Your task to perform on an android device: turn off priority inbox in the gmail app Image 0: 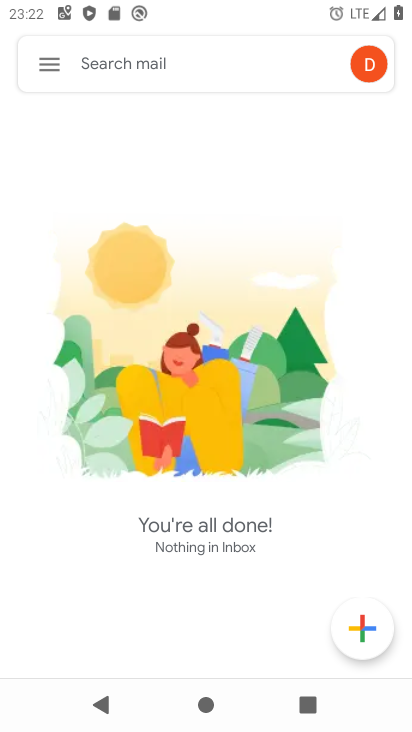
Step 0: click (43, 67)
Your task to perform on an android device: turn off priority inbox in the gmail app Image 1: 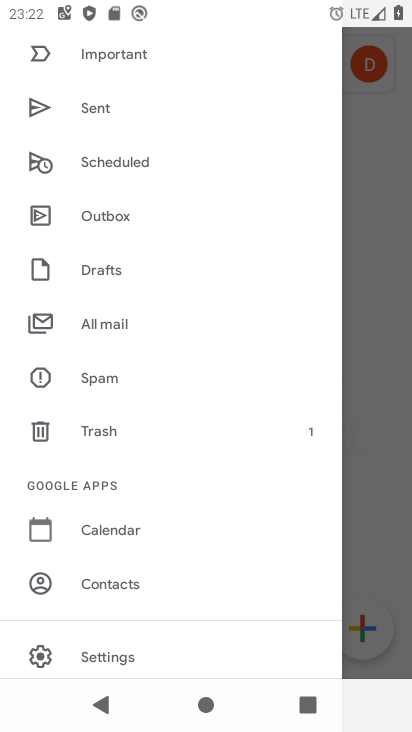
Step 1: click (125, 669)
Your task to perform on an android device: turn off priority inbox in the gmail app Image 2: 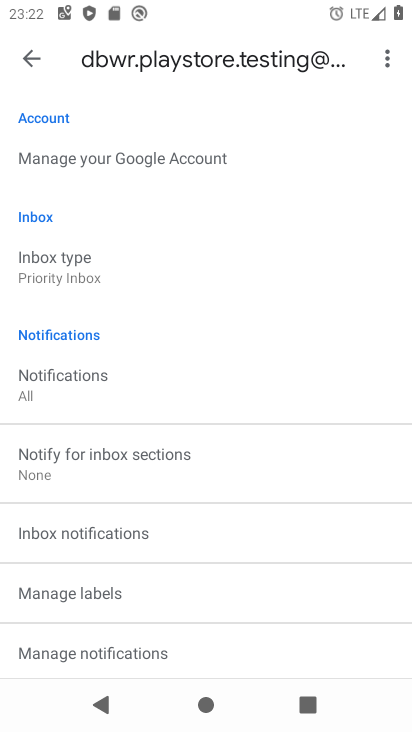
Step 2: click (54, 262)
Your task to perform on an android device: turn off priority inbox in the gmail app Image 3: 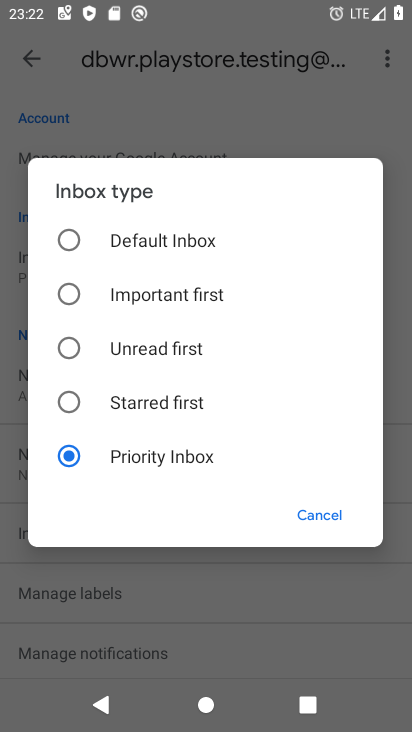
Step 3: click (71, 236)
Your task to perform on an android device: turn off priority inbox in the gmail app Image 4: 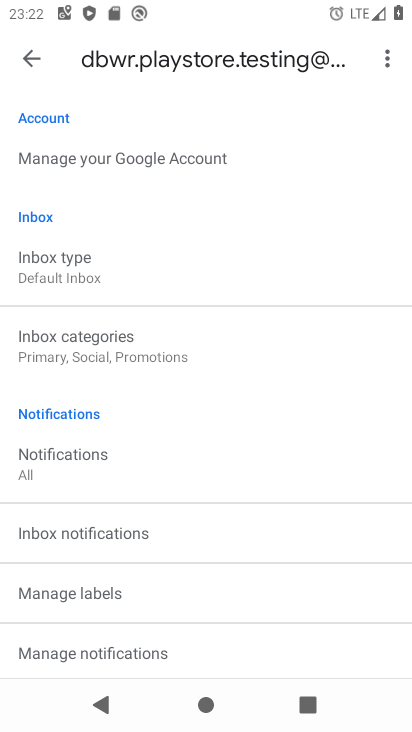
Step 4: task complete